Your task to perform on an android device: Do I have any events tomorrow? Image 0: 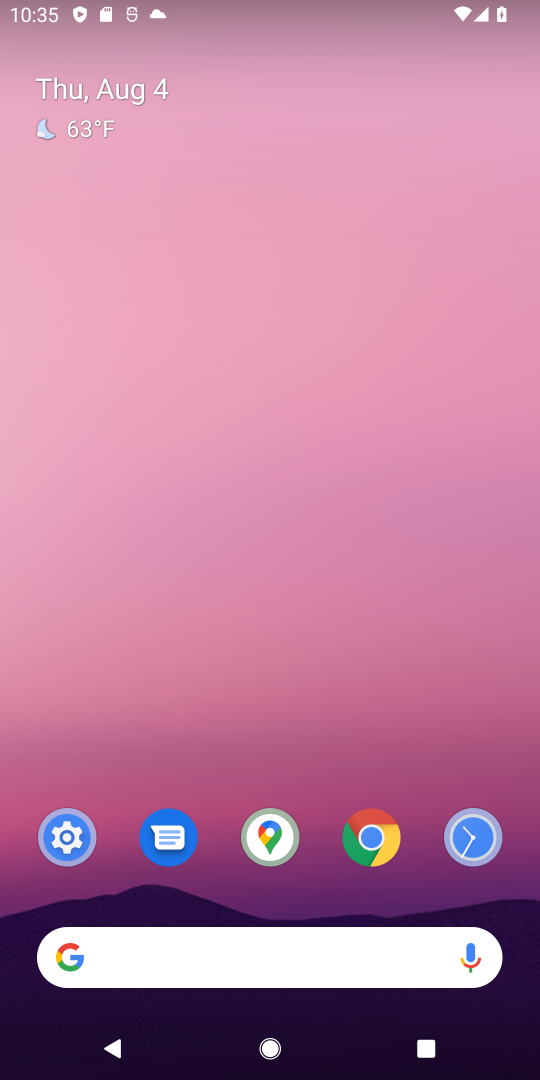
Step 0: drag from (276, 786) to (325, 3)
Your task to perform on an android device: Do I have any events tomorrow? Image 1: 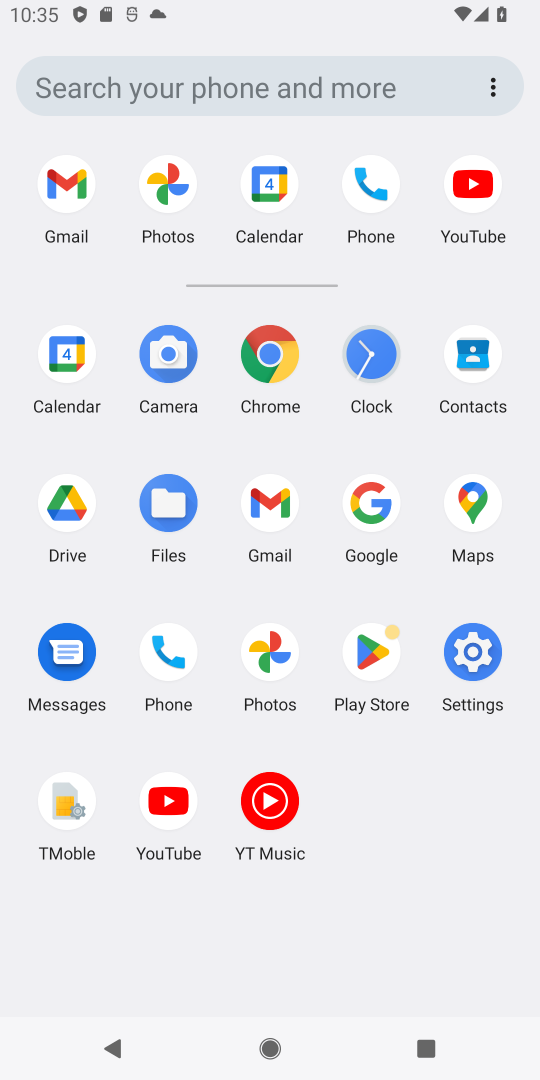
Step 1: click (66, 364)
Your task to perform on an android device: Do I have any events tomorrow? Image 2: 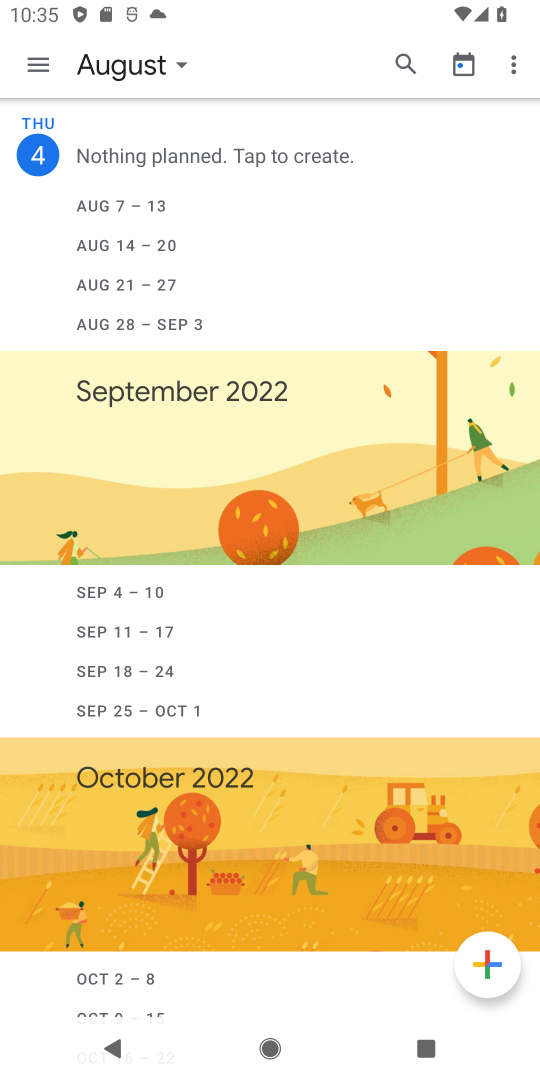
Step 2: click (161, 62)
Your task to perform on an android device: Do I have any events tomorrow? Image 3: 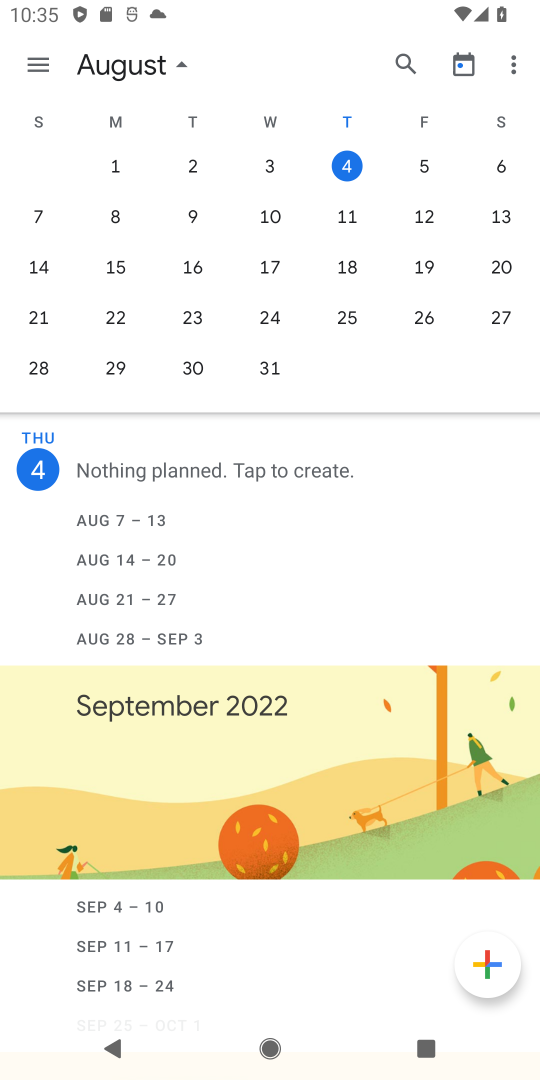
Step 3: click (425, 160)
Your task to perform on an android device: Do I have any events tomorrow? Image 4: 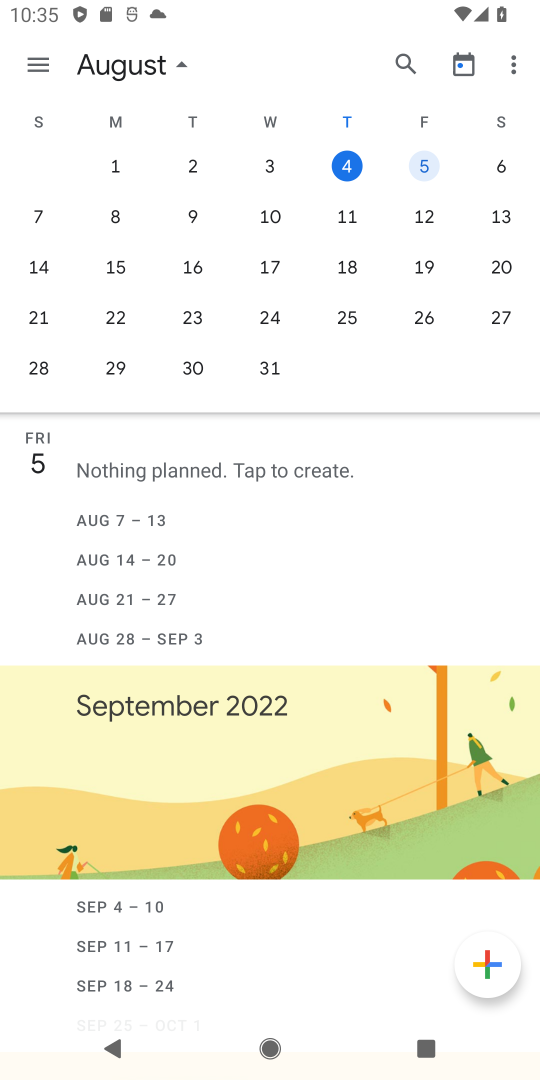
Step 4: click (34, 453)
Your task to perform on an android device: Do I have any events tomorrow? Image 5: 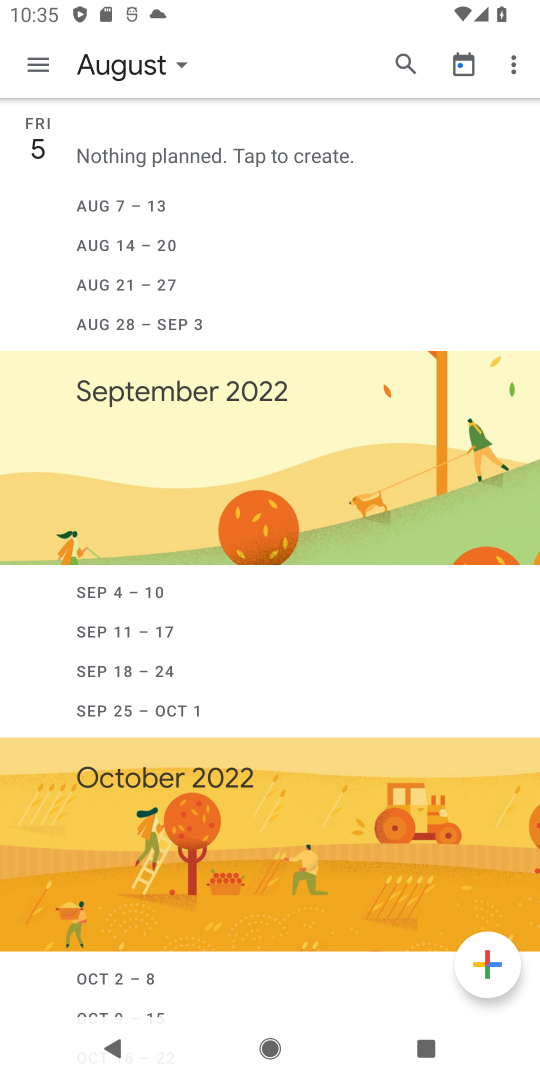
Step 5: click (43, 143)
Your task to perform on an android device: Do I have any events tomorrow? Image 6: 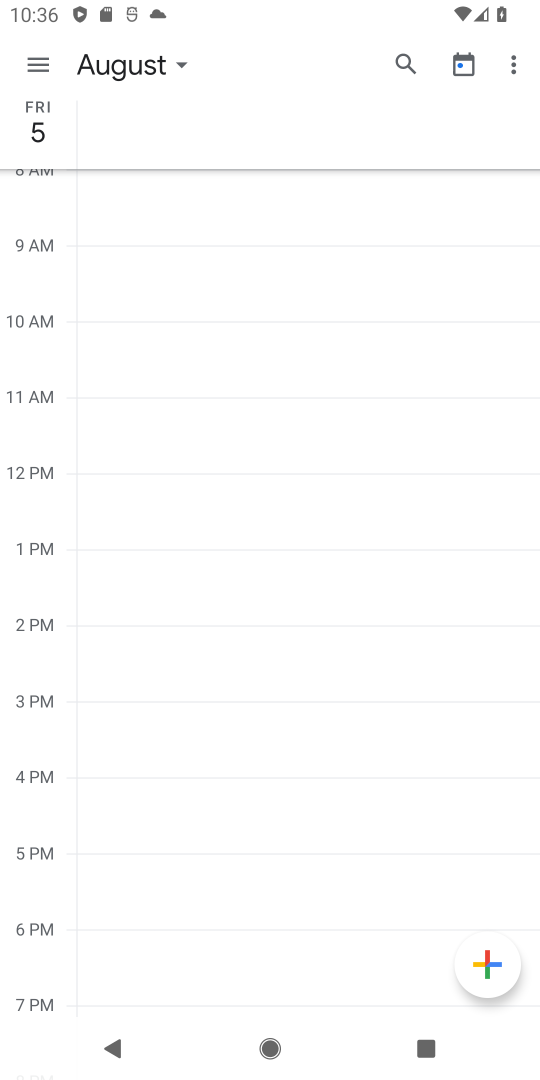
Step 6: task complete